Your task to perform on an android device: Go to battery settings Image 0: 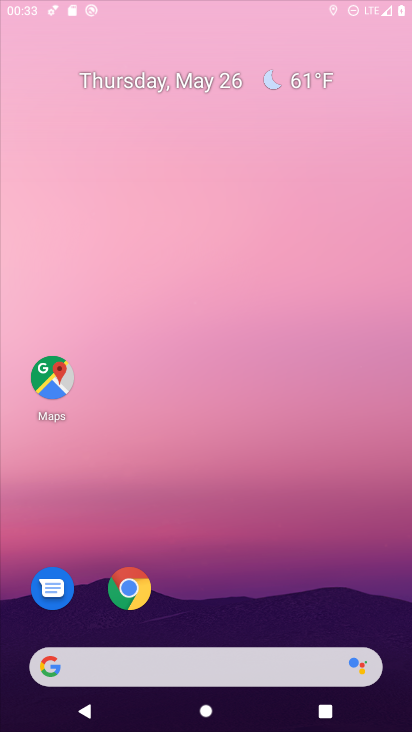
Step 0: drag from (328, 550) to (185, 171)
Your task to perform on an android device: Go to battery settings Image 1: 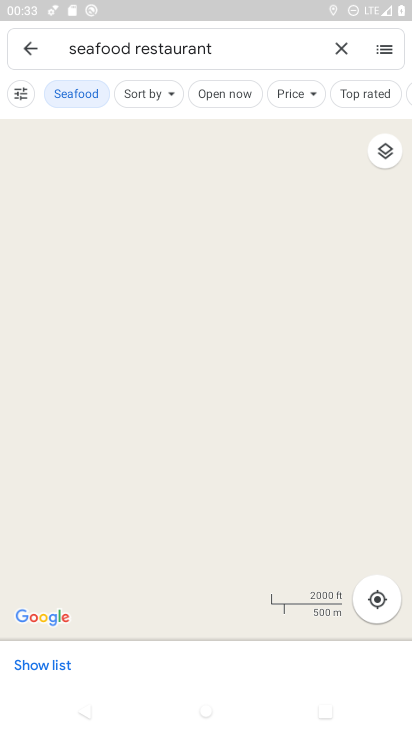
Step 1: press home button
Your task to perform on an android device: Go to battery settings Image 2: 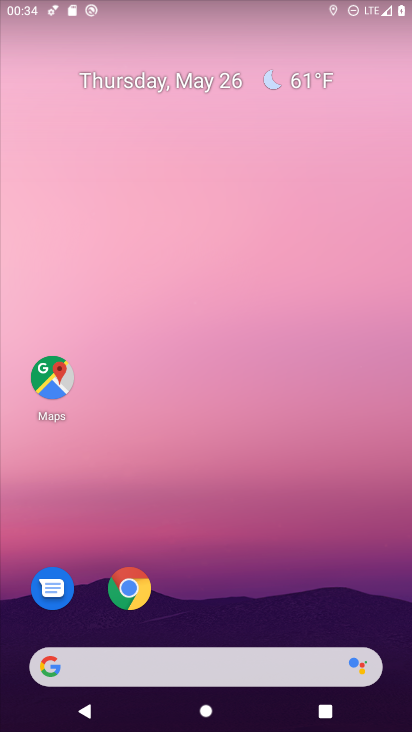
Step 2: drag from (220, 507) to (152, 145)
Your task to perform on an android device: Go to battery settings Image 3: 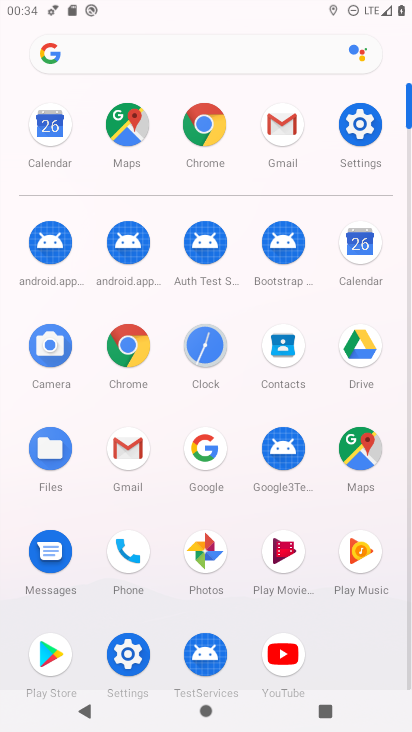
Step 3: click (354, 112)
Your task to perform on an android device: Go to battery settings Image 4: 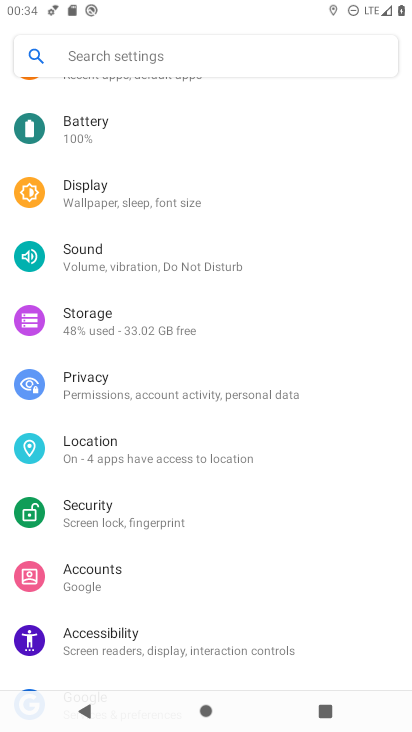
Step 4: click (83, 124)
Your task to perform on an android device: Go to battery settings Image 5: 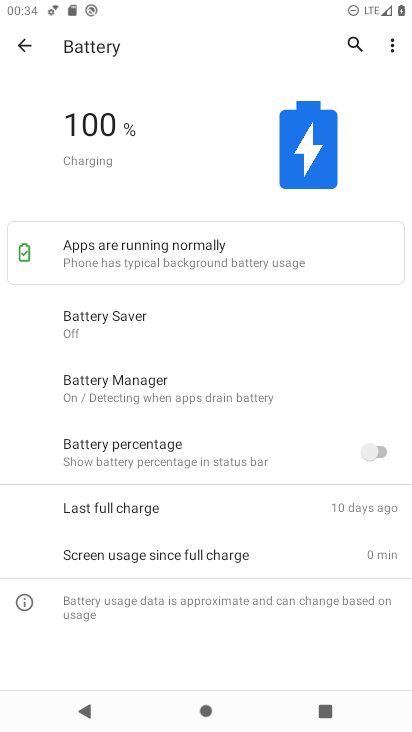
Step 5: task complete